Your task to perform on an android device: check out phone information Image 0: 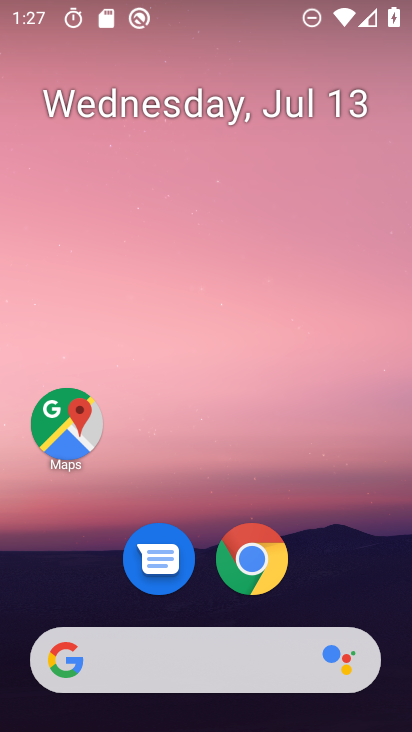
Step 0: drag from (133, 656) to (213, 217)
Your task to perform on an android device: check out phone information Image 1: 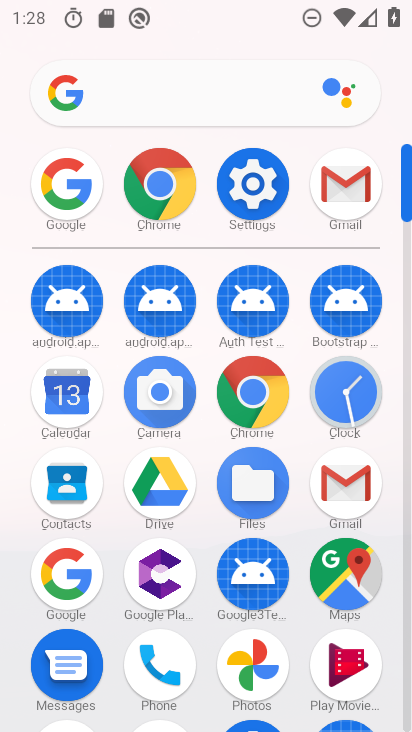
Step 1: click (270, 206)
Your task to perform on an android device: check out phone information Image 2: 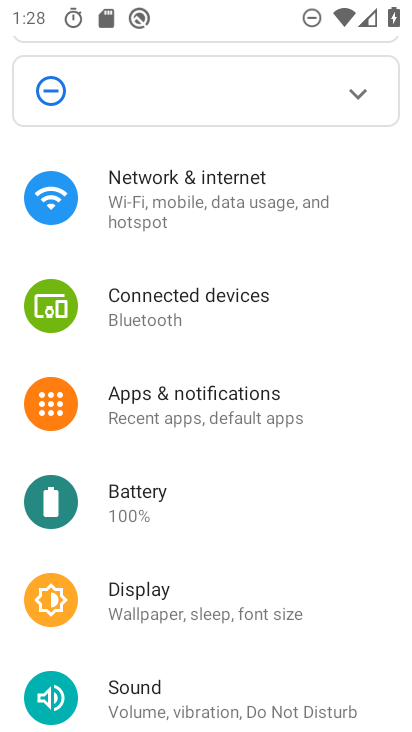
Step 2: drag from (164, 607) to (201, 306)
Your task to perform on an android device: check out phone information Image 3: 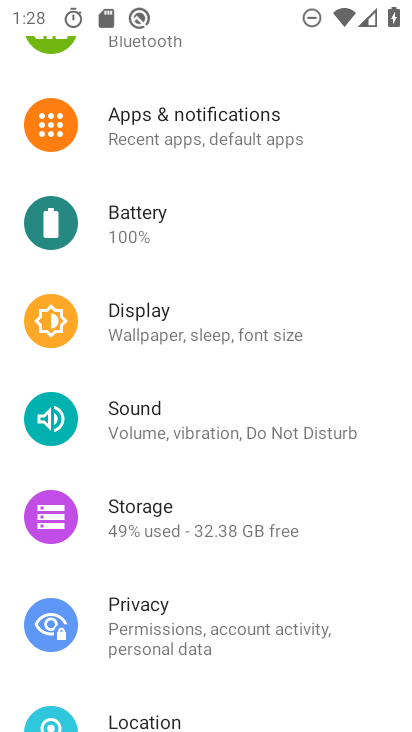
Step 3: drag from (200, 584) to (201, 356)
Your task to perform on an android device: check out phone information Image 4: 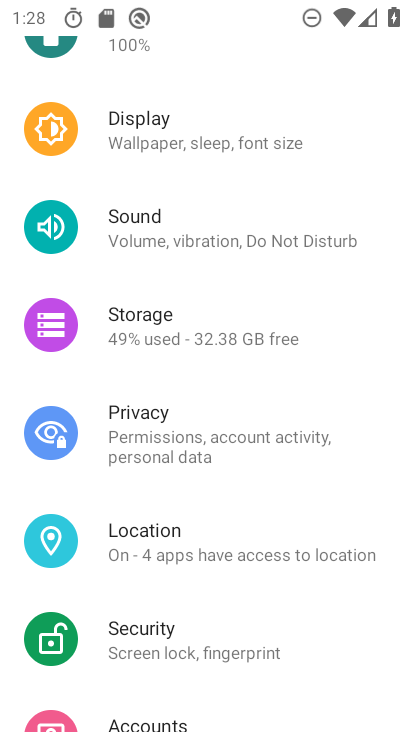
Step 4: drag from (216, 494) to (273, 202)
Your task to perform on an android device: check out phone information Image 5: 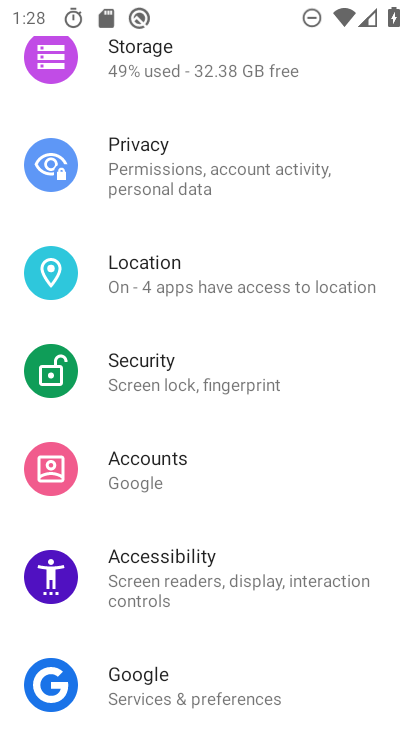
Step 5: drag from (223, 540) to (249, 295)
Your task to perform on an android device: check out phone information Image 6: 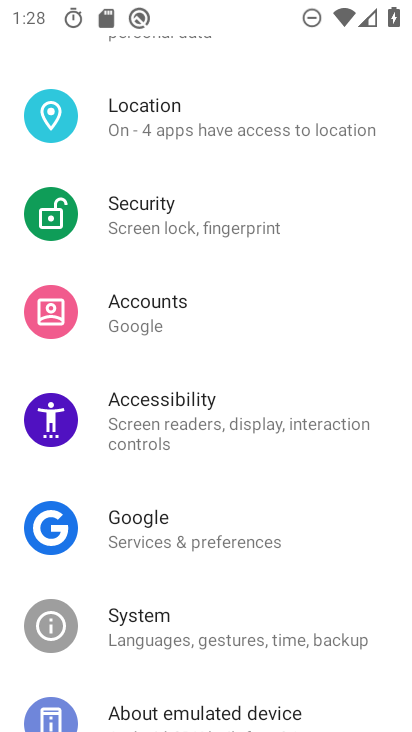
Step 6: drag from (214, 560) to (253, 303)
Your task to perform on an android device: check out phone information Image 7: 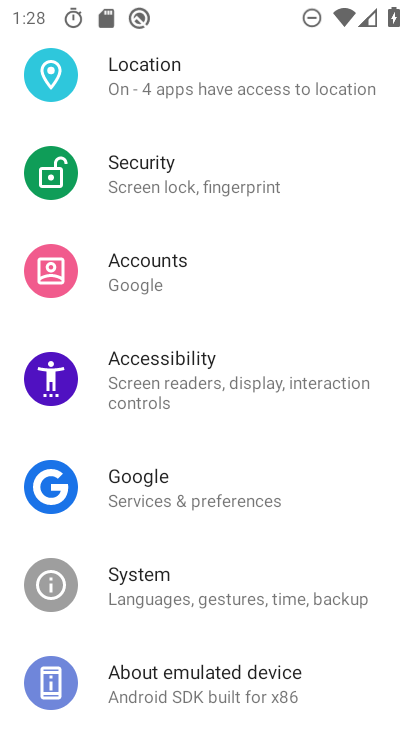
Step 7: click (208, 680)
Your task to perform on an android device: check out phone information Image 8: 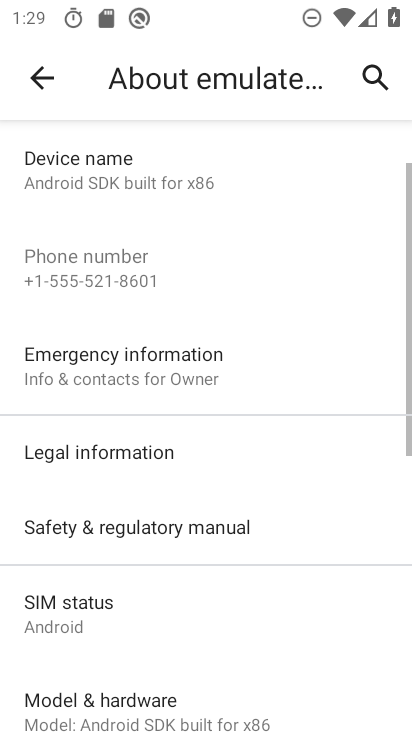
Step 8: drag from (151, 555) to (171, 636)
Your task to perform on an android device: check out phone information Image 9: 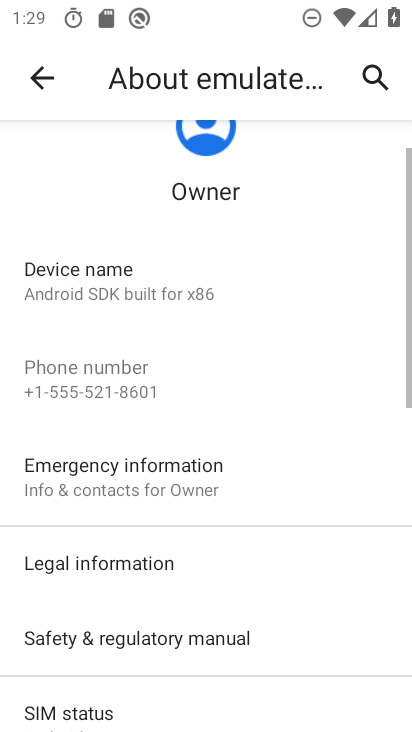
Step 9: click (229, 387)
Your task to perform on an android device: check out phone information Image 10: 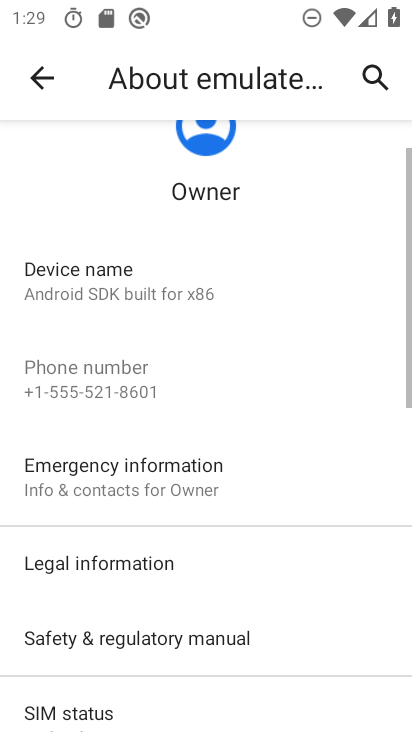
Step 10: task complete